Your task to perform on an android device: Turn off the flashlight Image 0: 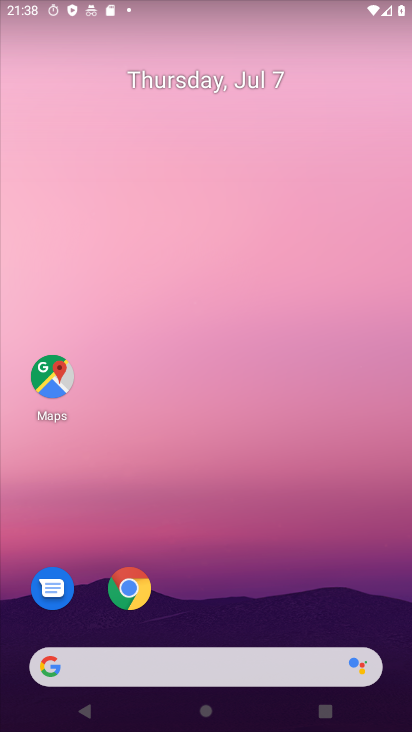
Step 0: press back button
Your task to perform on an android device: Turn off the flashlight Image 1: 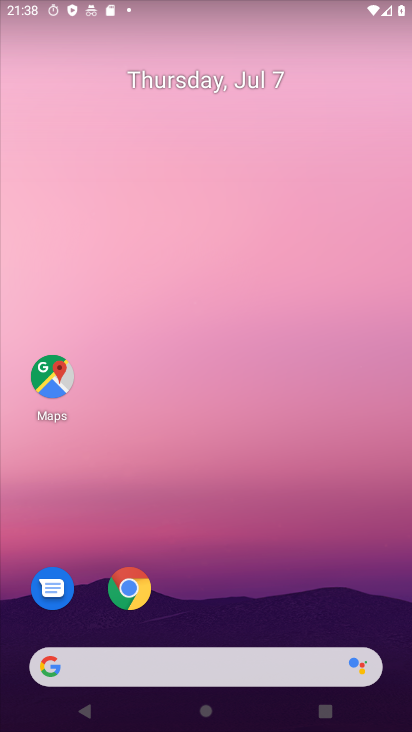
Step 1: press back button
Your task to perform on an android device: Turn off the flashlight Image 2: 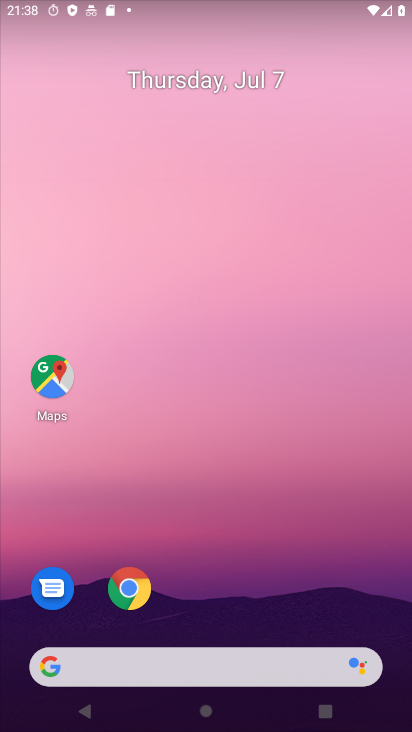
Step 2: drag from (221, 524) to (144, 35)
Your task to perform on an android device: Turn off the flashlight Image 3: 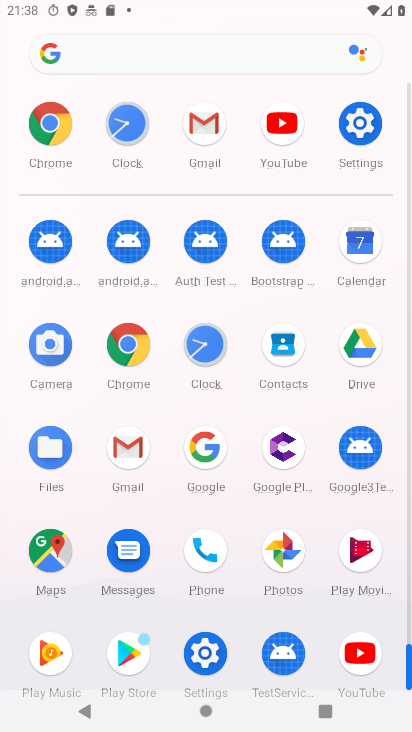
Step 3: drag from (228, 445) to (196, 128)
Your task to perform on an android device: Turn off the flashlight Image 4: 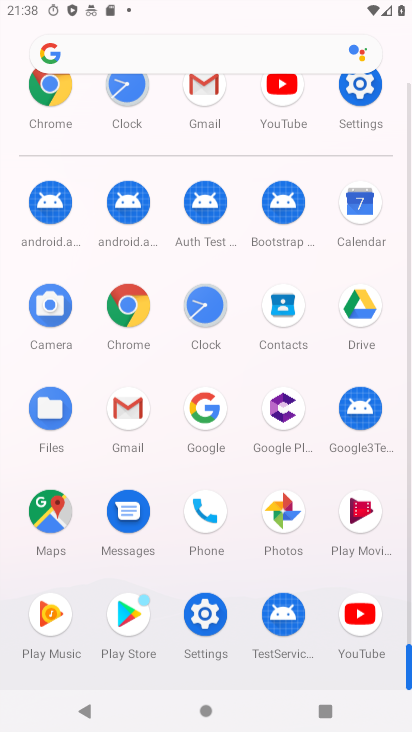
Step 4: drag from (252, 506) to (230, 172)
Your task to perform on an android device: Turn off the flashlight Image 5: 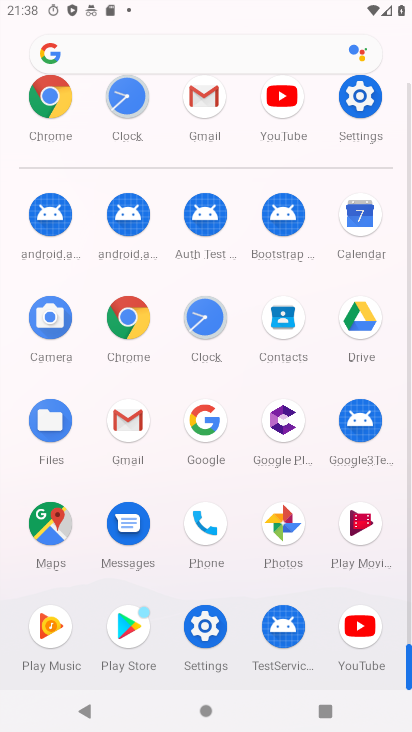
Step 5: click (128, 176)
Your task to perform on an android device: Turn off the flashlight Image 6: 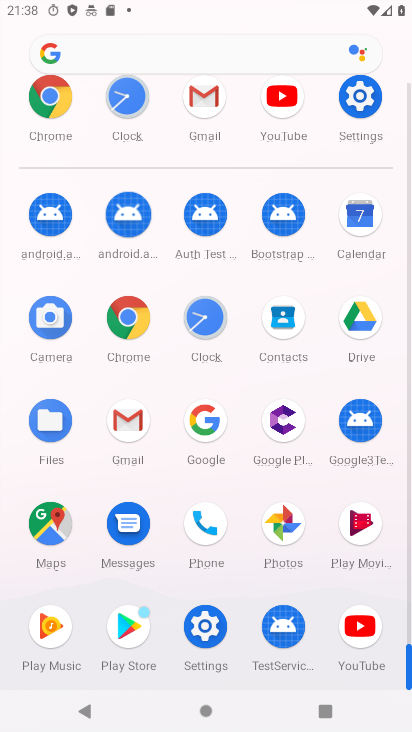
Step 6: click (176, 241)
Your task to perform on an android device: Turn off the flashlight Image 7: 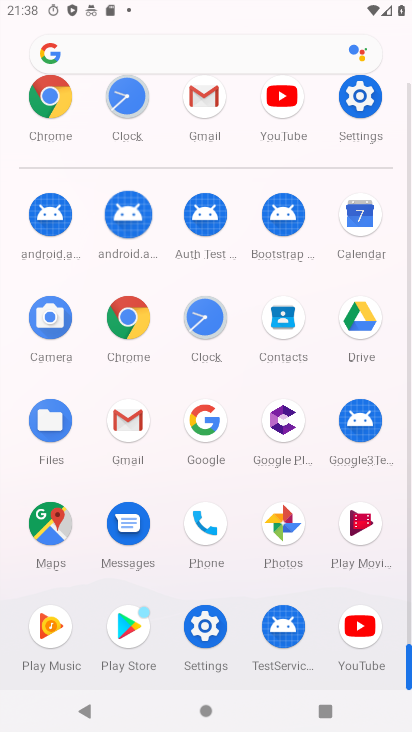
Step 7: task complete